Your task to perform on an android device: Show me the alarms in the clock app Image 0: 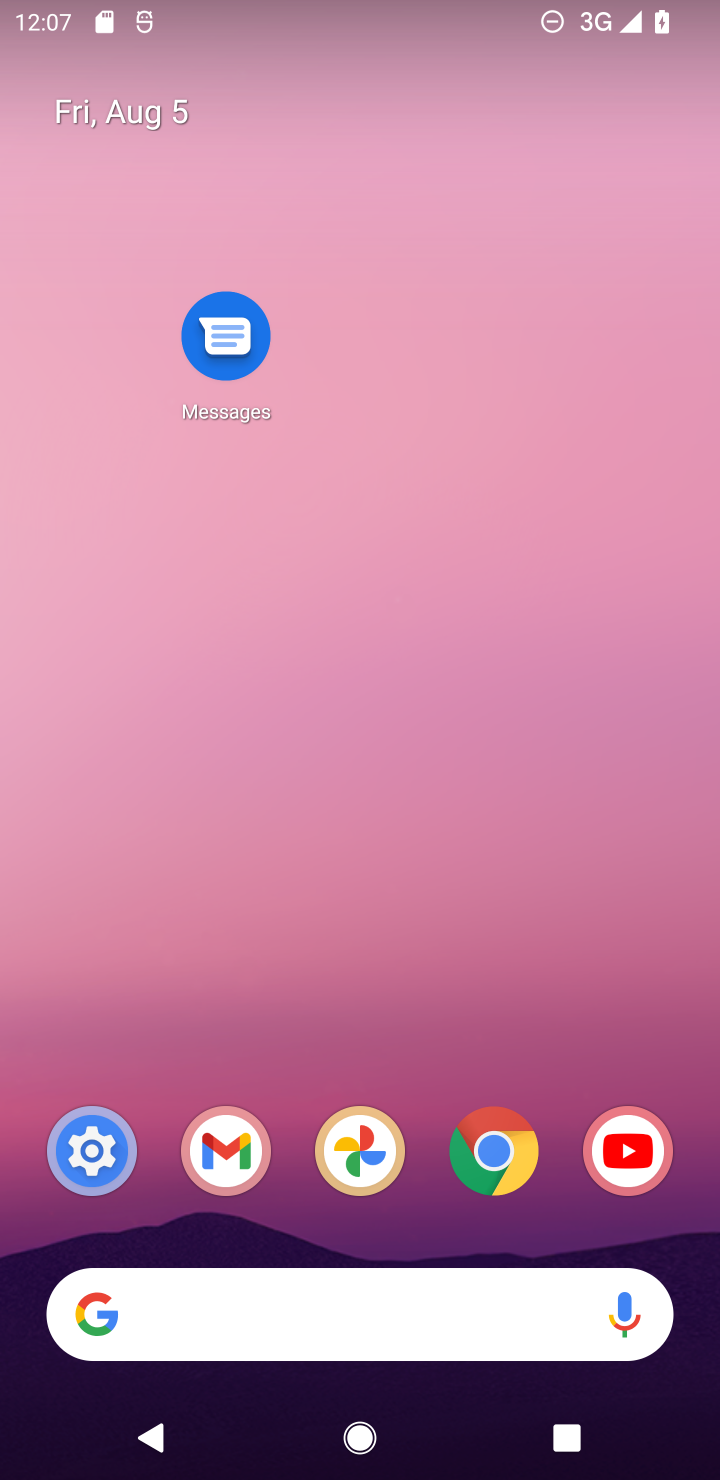
Step 0: drag from (305, 903) to (560, 22)
Your task to perform on an android device: Show me the alarms in the clock app Image 1: 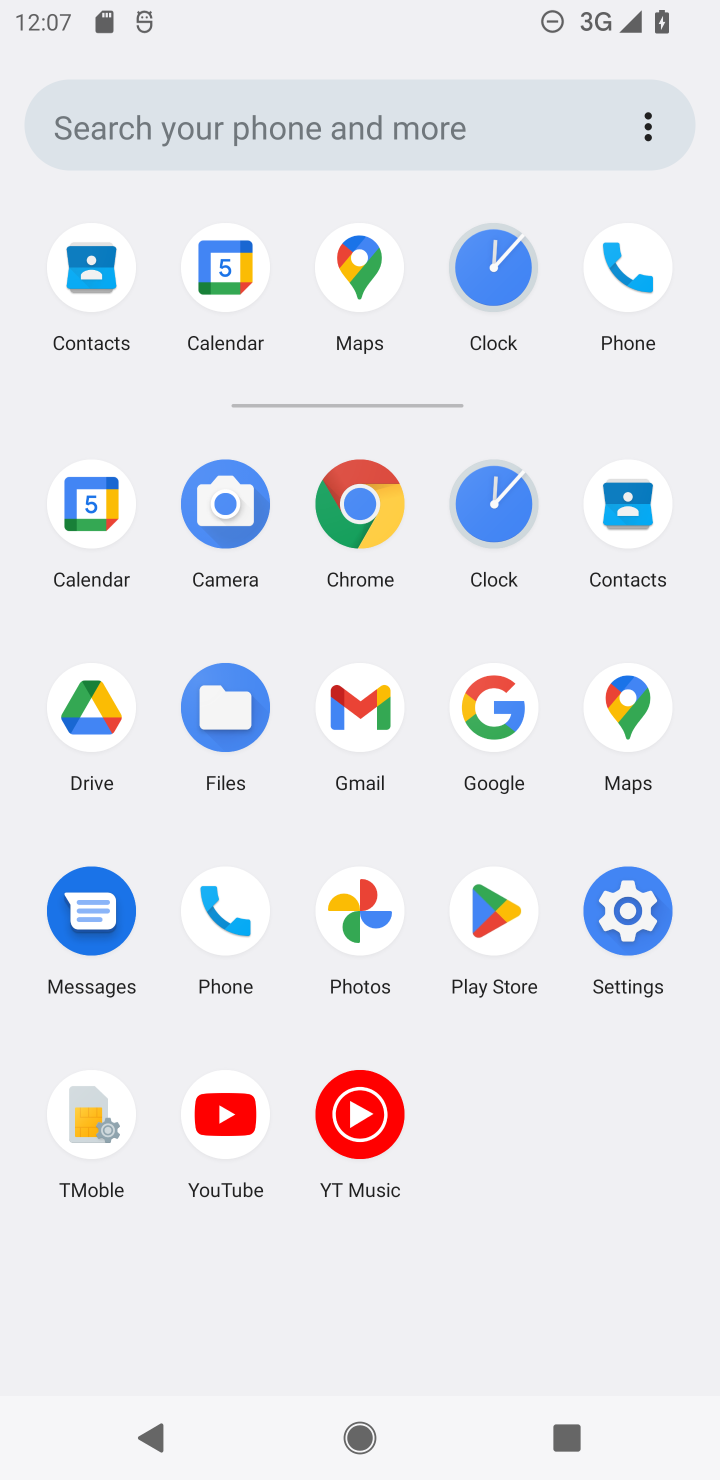
Step 1: click (490, 538)
Your task to perform on an android device: Show me the alarms in the clock app Image 2: 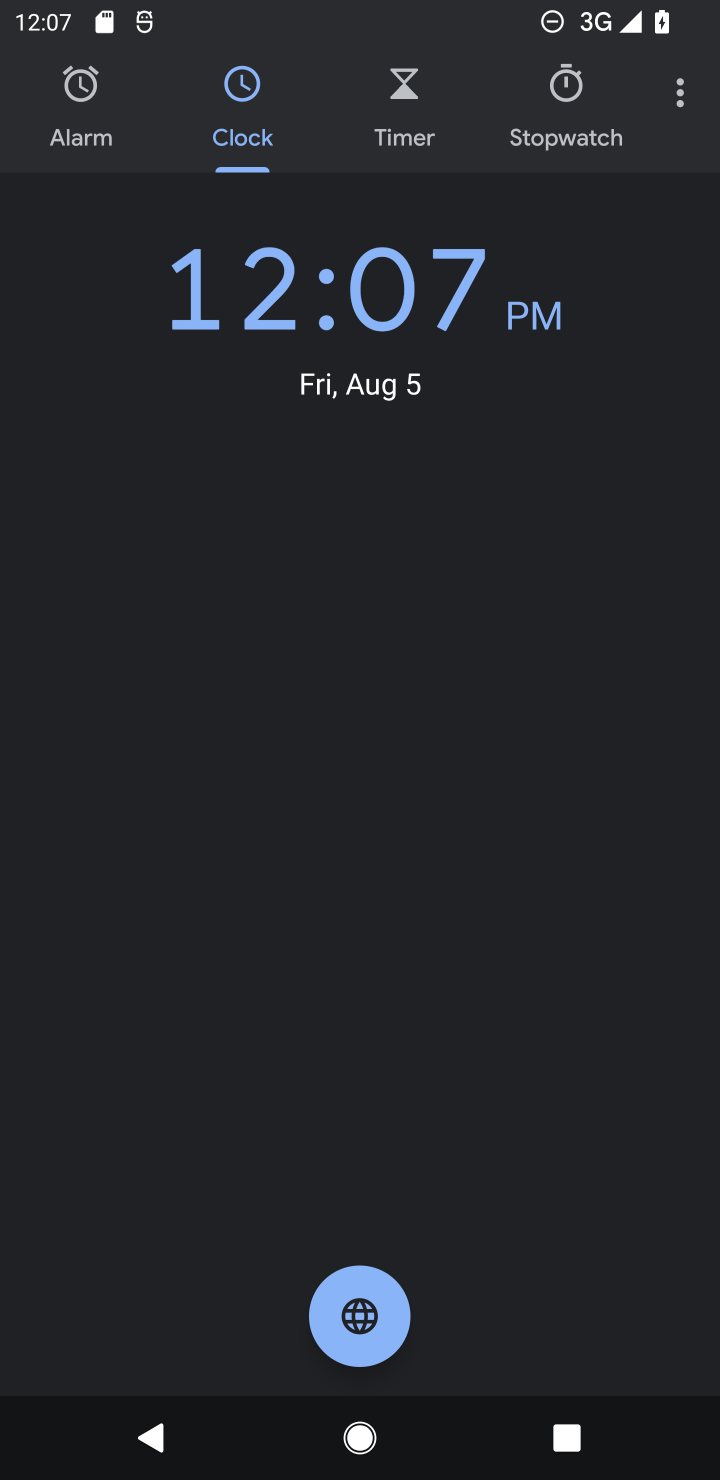
Step 2: click (685, 102)
Your task to perform on an android device: Show me the alarms in the clock app Image 3: 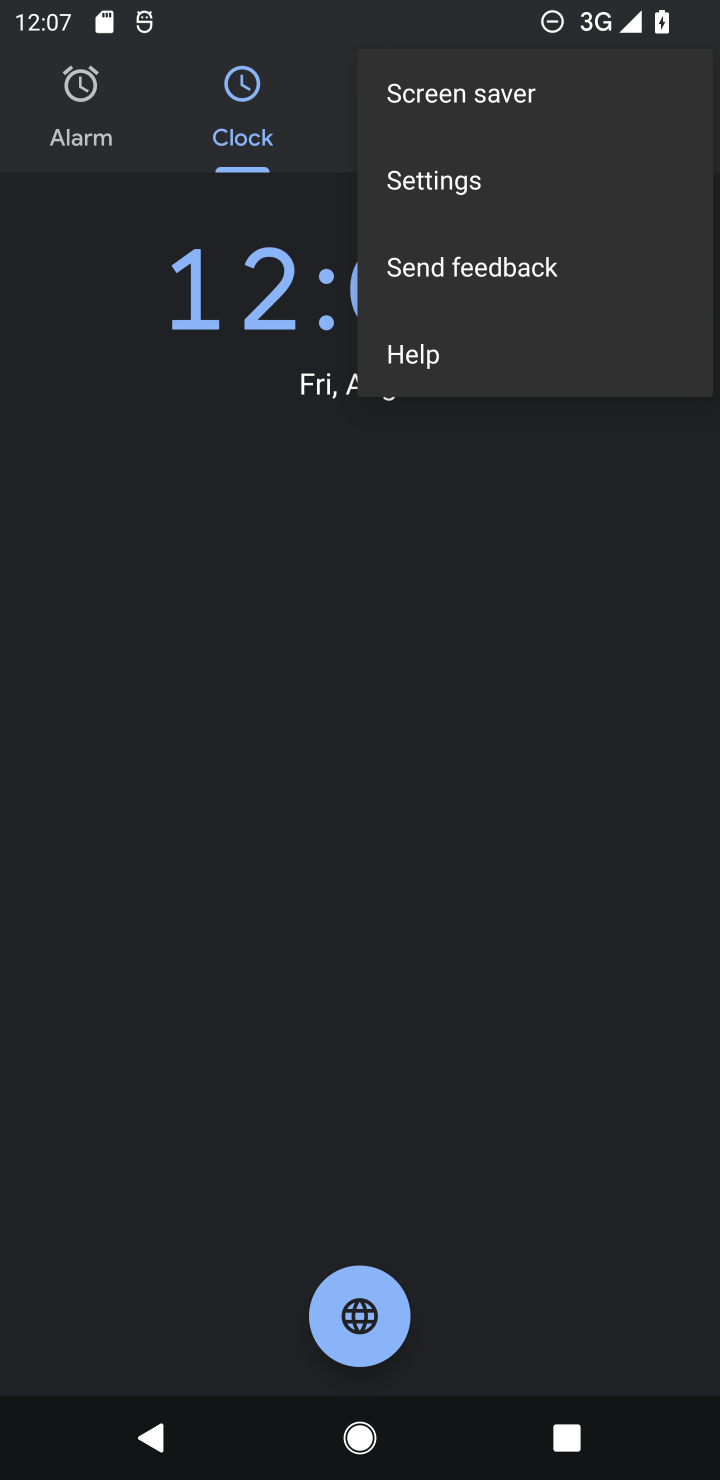
Step 3: click (443, 199)
Your task to perform on an android device: Show me the alarms in the clock app Image 4: 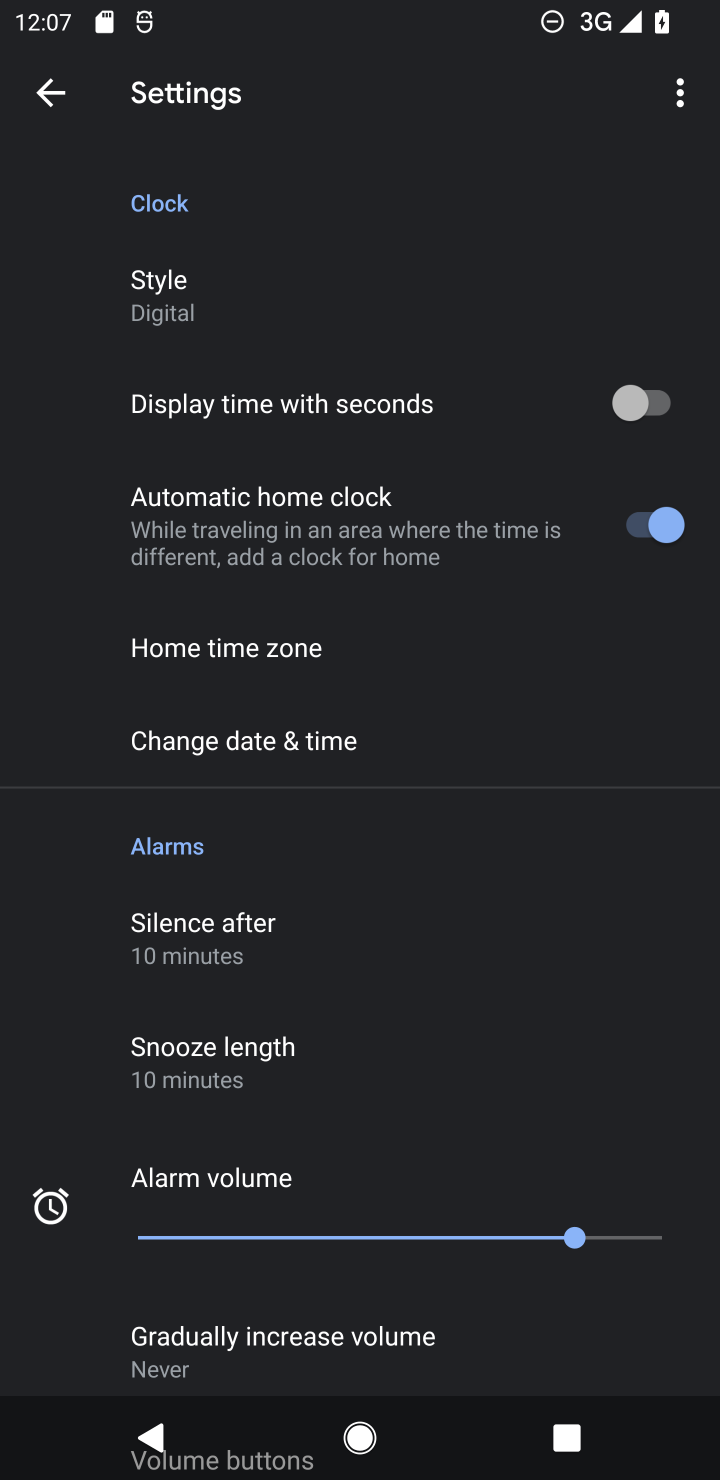
Step 4: press back button
Your task to perform on an android device: Show me the alarms in the clock app Image 5: 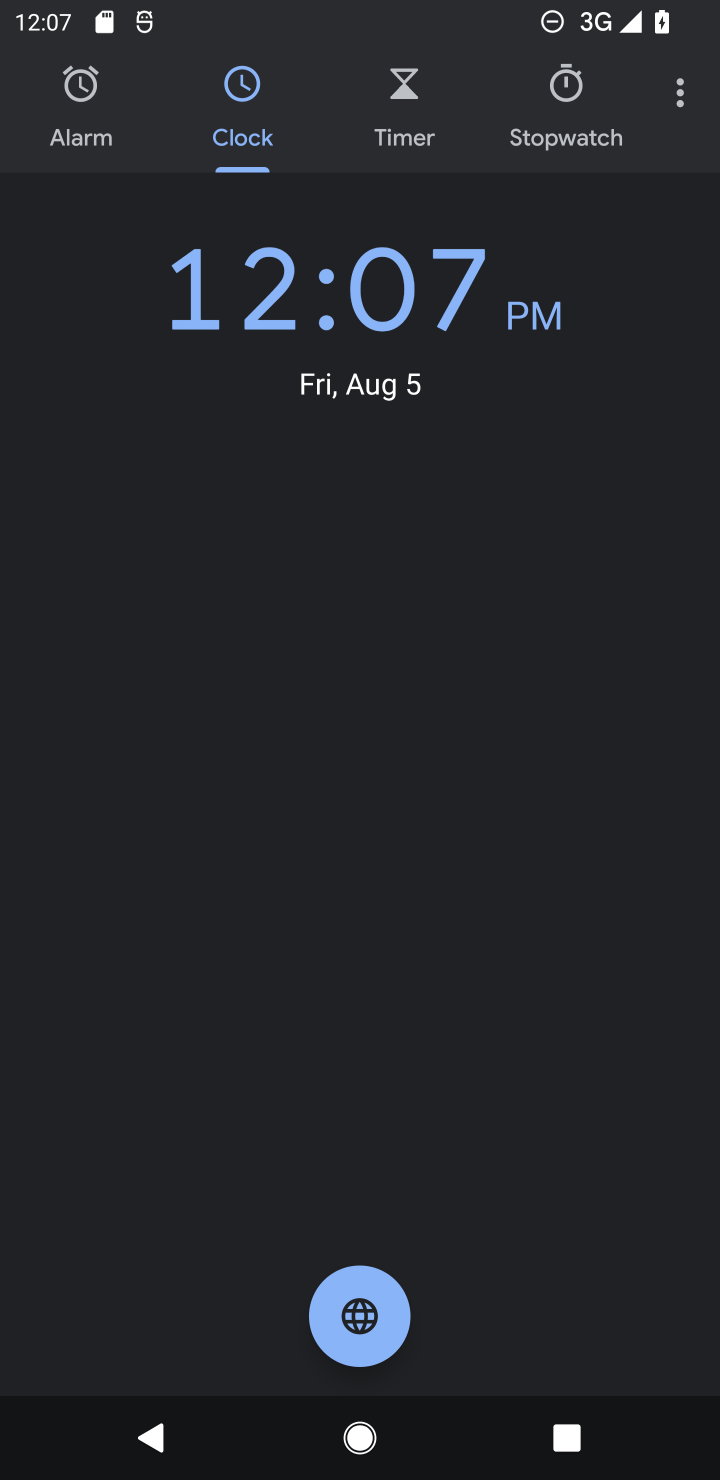
Step 5: click (74, 95)
Your task to perform on an android device: Show me the alarms in the clock app Image 6: 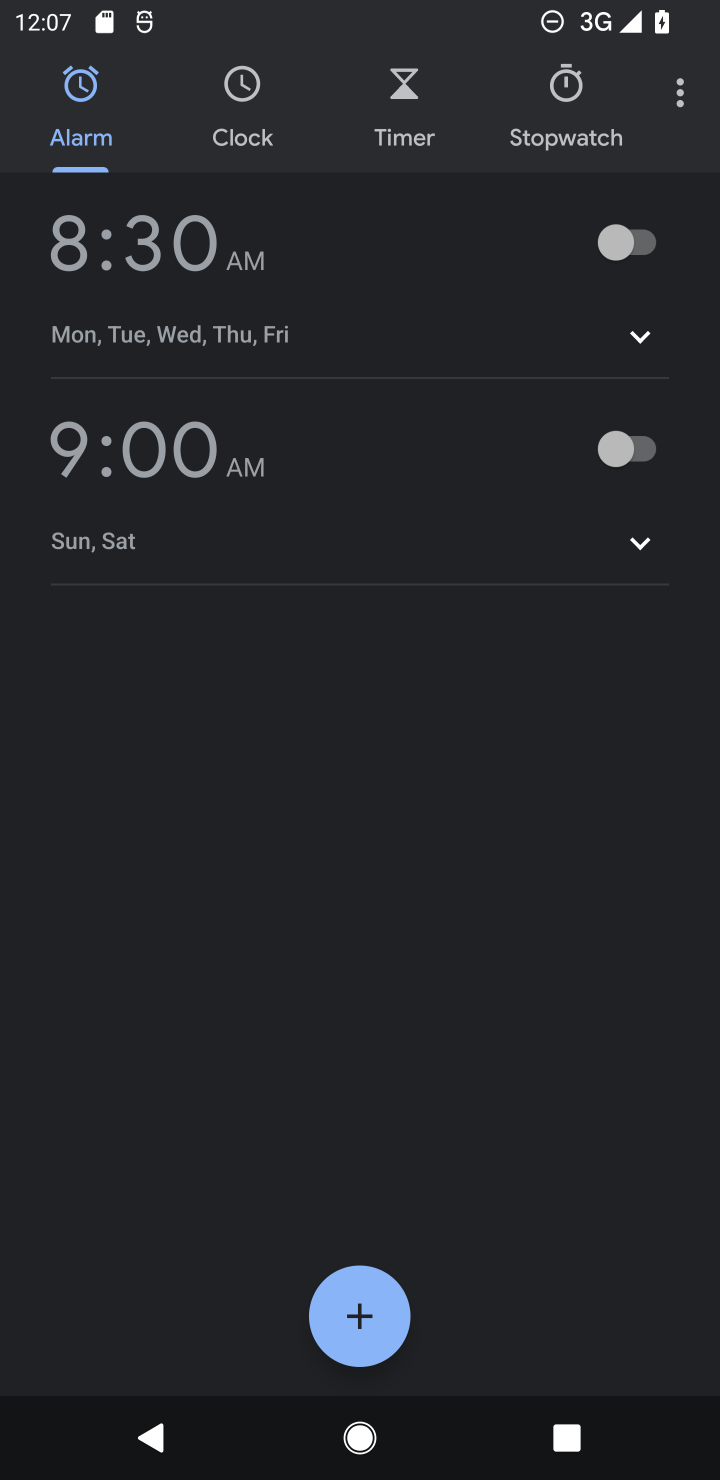
Step 6: task complete